Your task to perform on an android device: move an email to a new category in the gmail app Image 0: 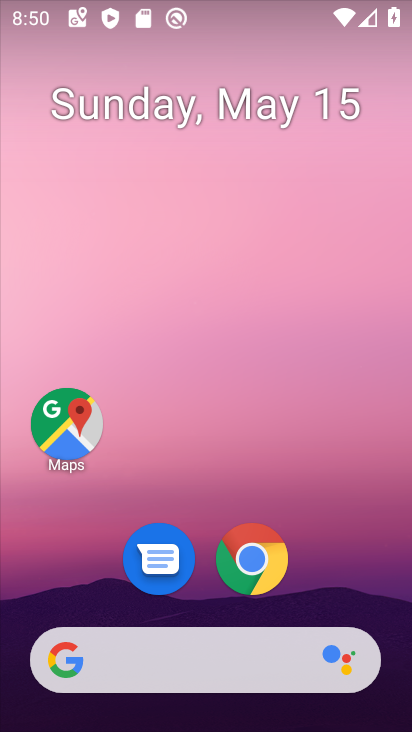
Step 0: drag from (367, 330) to (370, 90)
Your task to perform on an android device: move an email to a new category in the gmail app Image 1: 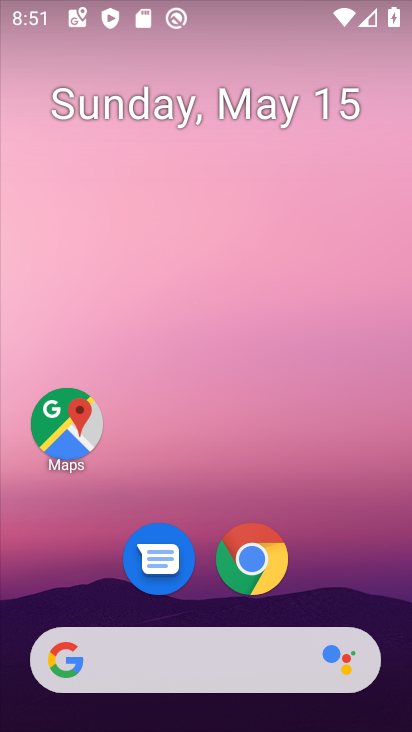
Step 1: drag from (332, 578) to (299, 41)
Your task to perform on an android device: move an email to a new category in the gmail app Image 2: 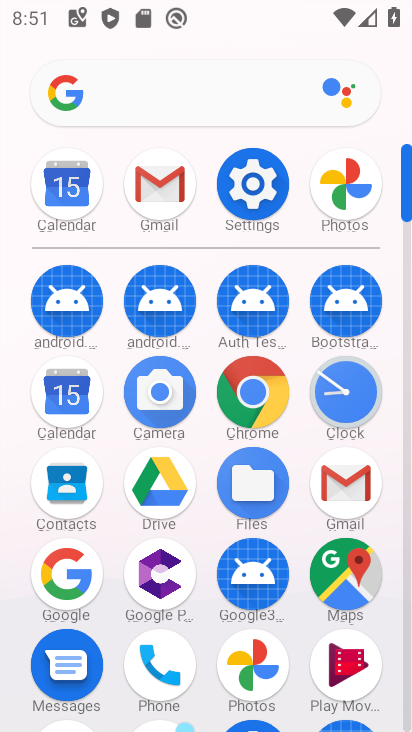
Step 2: click (327, 493)
Your task to perform on an android device: move an email to a new category in the gmail app Image 3: 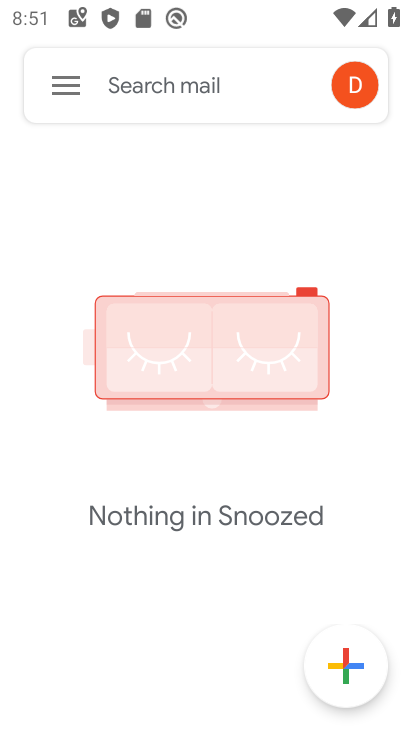
Step 3: click (66, 84)
Your task to perform on an android device: move an email to a new category in the gmail app Image 4: 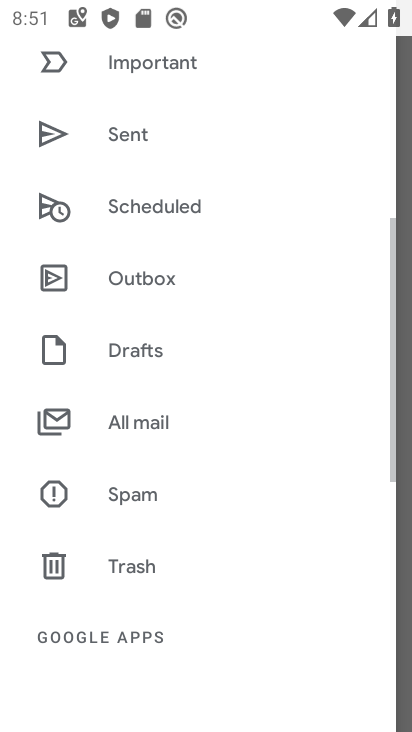
Step 4: drag from (170, 588) to (230, 238)
Your task to perform on an android device: move an email to a new category in the gmail app Image 5: 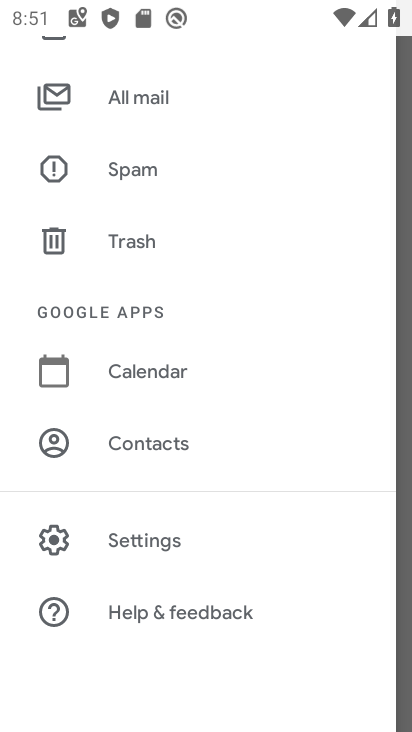
Step 5: click (149, 112)
Your task to perform on an android device: move an email to a new category in the gmail app Image 6: 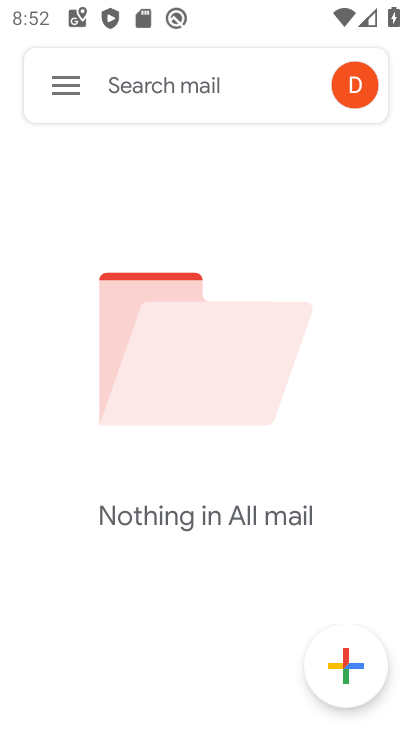
Step 6: click (41, 60)
Your task to perform on an android device: move an email to a new category in the gmail app Image 7: 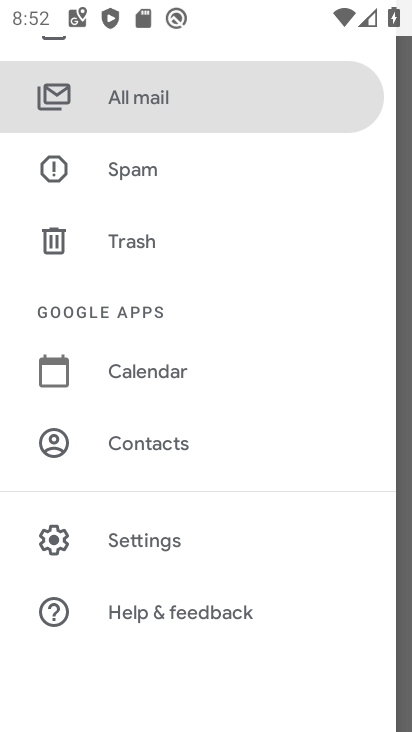
Step 7: task complete